Your task to perform on an android device: Go to accessibility settings Image 0: 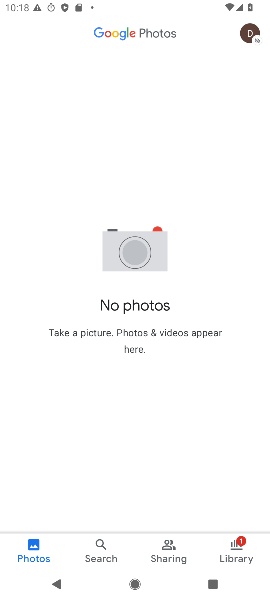
Step 0: press home button
Your task to perform on an android device: Go to accessibility settings Image 1: 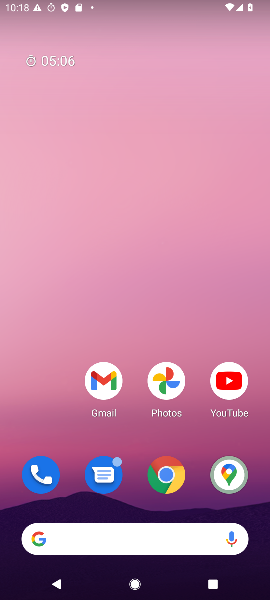
Step 1: drag from (145, 129) to (197, 18)
Your task to perform on an android device: Go to accessibility settings Image 2: 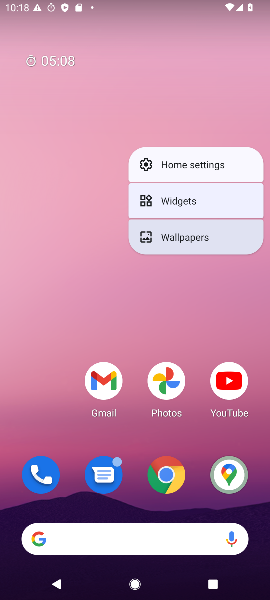
Step 2: drag from (132, 227) to (168, 1)
Your task to perform on an android device: Go to accessibility settings Image 3: 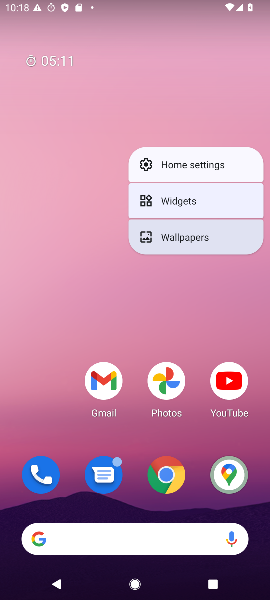
Step 3: click (35, 397)
Your task to perform on an android device: Go to accessibility settings Image 4: 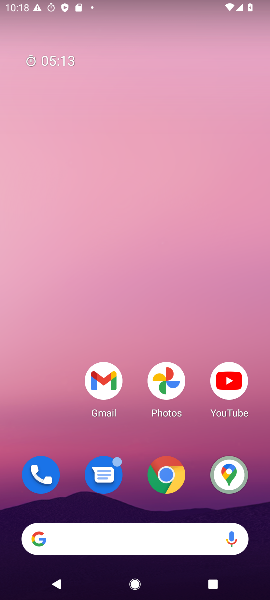
Step 4: drag from (130, 520) to (138, 32)
Your task to perform on an android device: Go to accessibility settings Image 5: 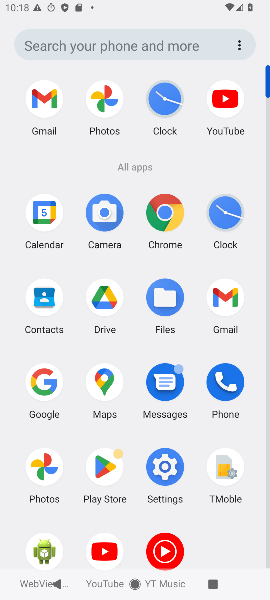
Step 5: click (164, 519)
Your task to perform on an android device: Go to accessibility settings Image 6: 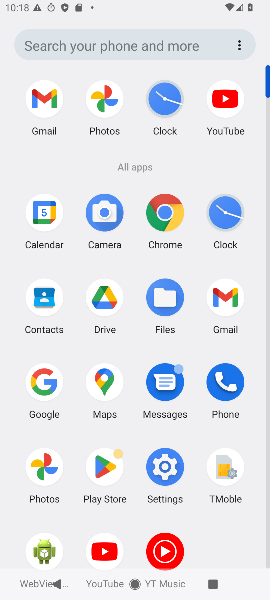
Step 6: click (168, 474)
Your task to perform on an android device: Go to accessibility settings Image 7: 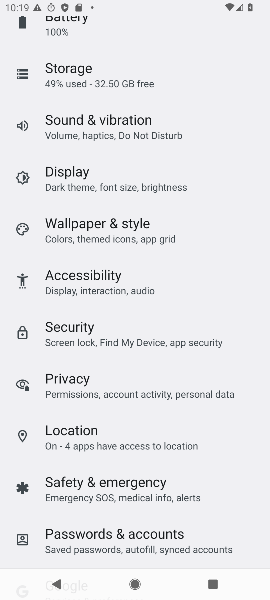
Step 7: click (107, 282)
Your task to perform on an android device: Go to accessibility settings Image 8: 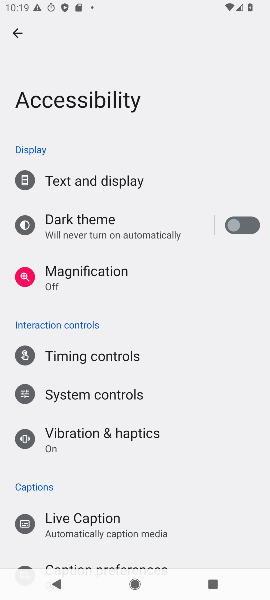
Step 8: task complete